Your task to perform on an android device: Go to display settings Image 0: 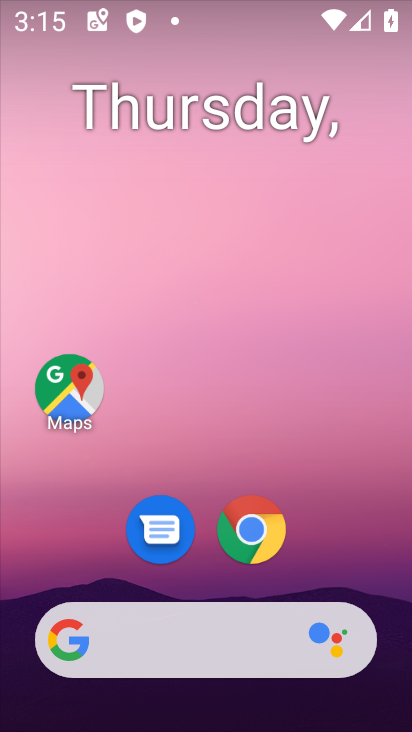
Step 0: drag from (349, 531) to (252, 47)
Your task to perform on an android device: Go to display settings Image 1: 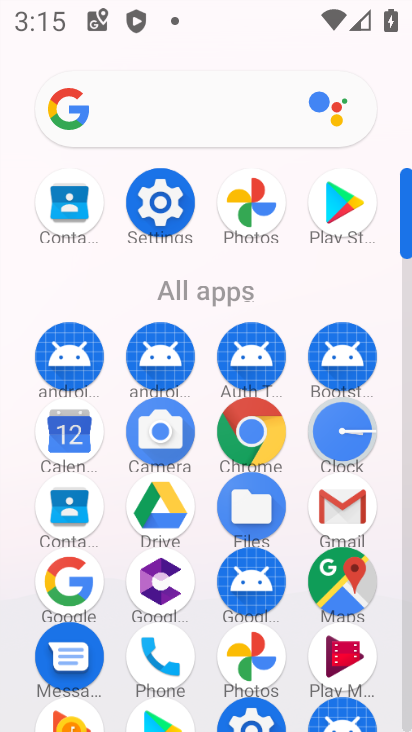
Step 1: click (160, 201)
Your task to perform on an android device: Go to display settings Image 2: 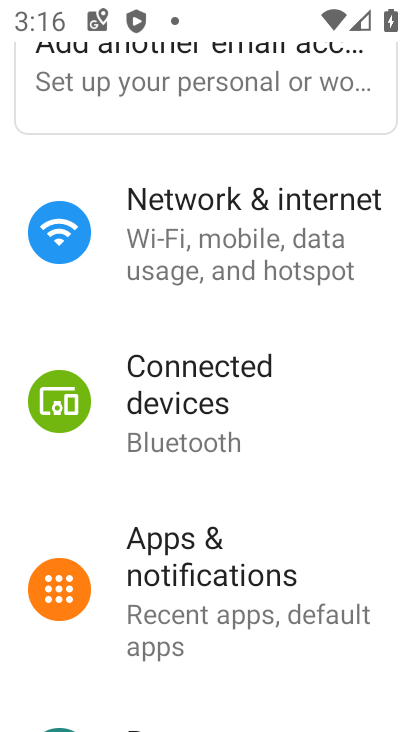
Step 2: drag from (237, 545) to (312, 380)
Your task to perform on an android device: Go to display settings Image 3: 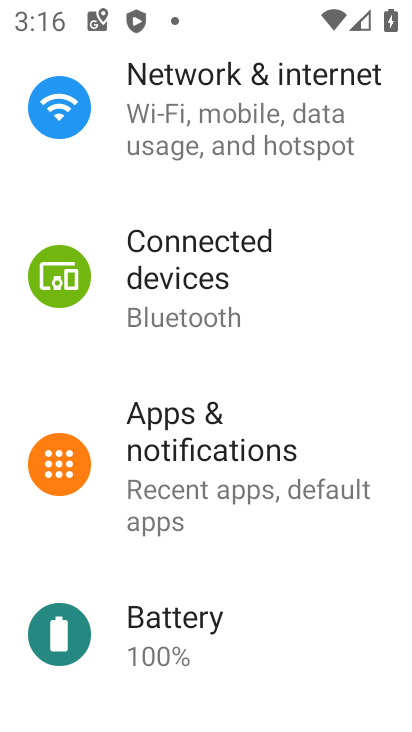
Step 3: drag from (255, 608) to (283, 438)
Your task to perform on an android device: Go to display settings Image 4: 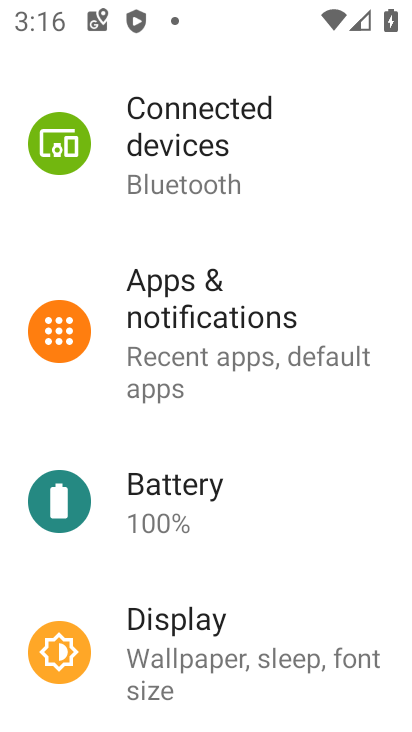
Step 4: click (198, 619)
Your task to perform on an android device: Go to display settings Image 5: 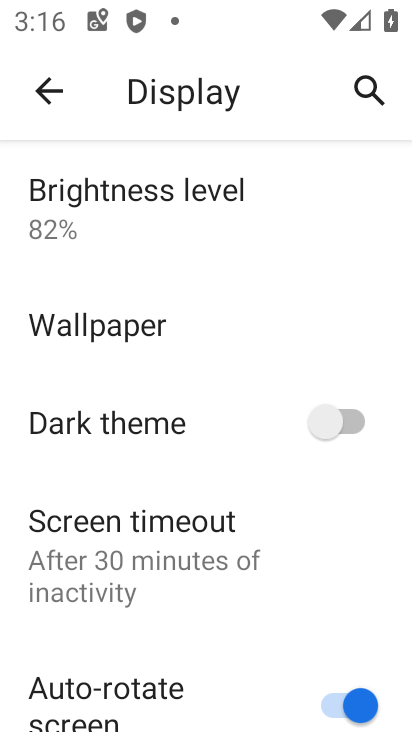
Step 5: task complete